Your task to perform on an android device: change notification settings in the gmail app Image 0: 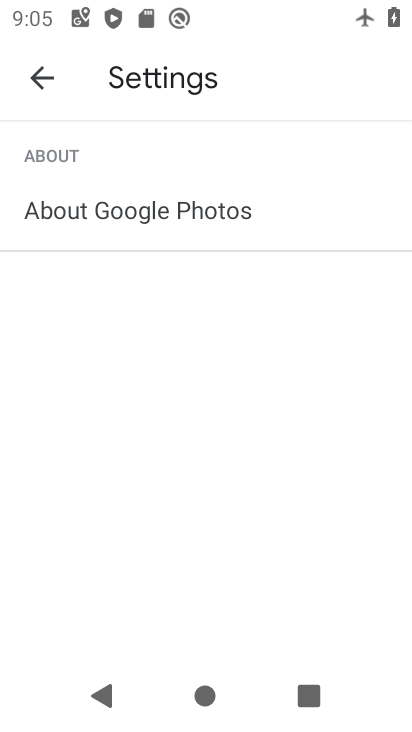
Step 0: press home button
Your task to perform on an android device: change notification settings in the gmail app Image 1: 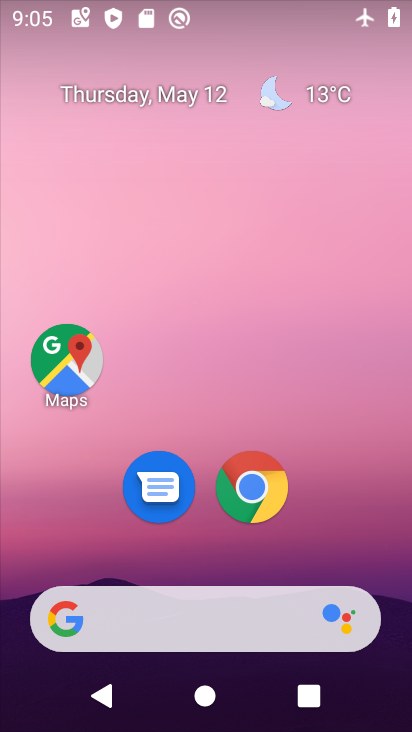
Step 1: drag from (381, 535) to (288, 0)
Your task to perform on an android device: change notification settings in the gmail app Image 2: 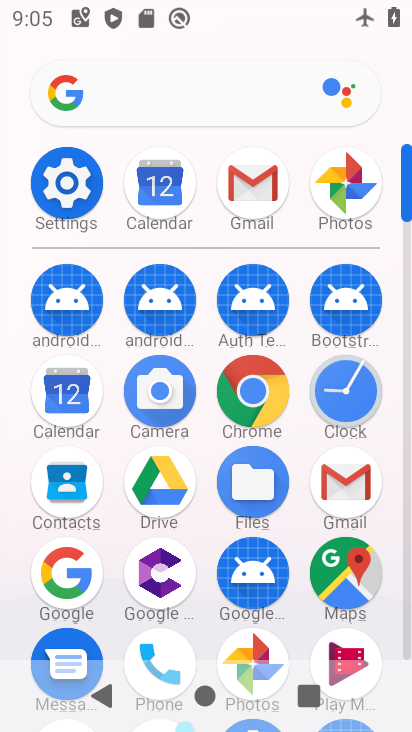
Step 2: click (249, 197)
Your task to perform on an android device: change notification settings in the gmail app Image 3: 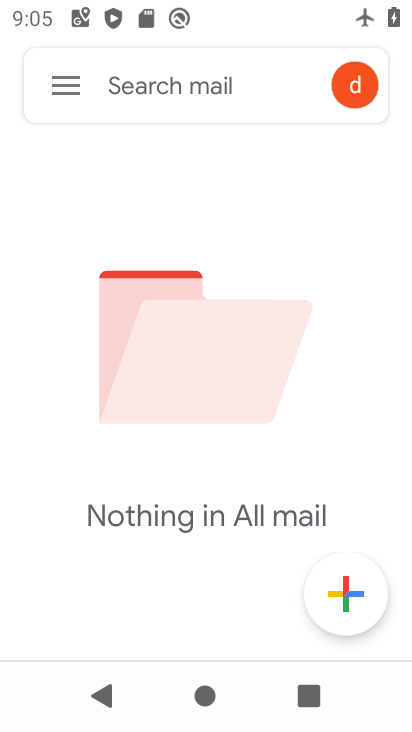
Step 3: click (70, 81)
Your task to perform on an android device: change notification settings in the gmail app Image 4: 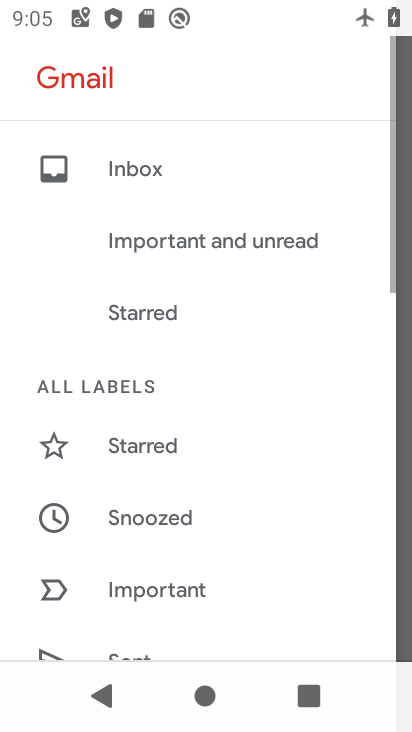
Step 4: drag from (236, 522) to (244, 109)
Your task to perform on an android device: change notification settings in the gmail app Image 5: 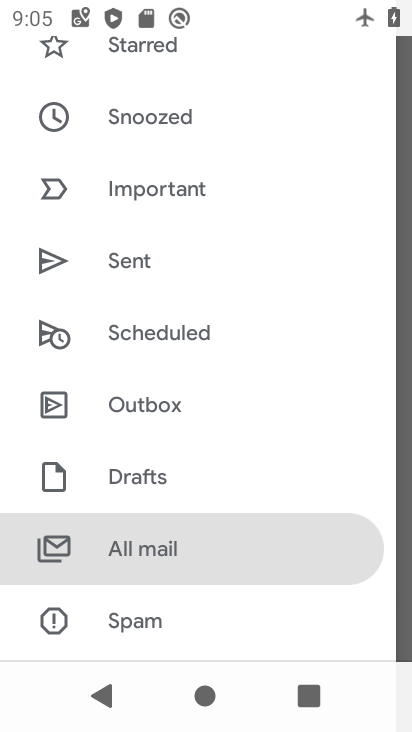
Step 5: drag from (264, 569) to (269, 139)
Your task to perform on an android device: change notification settings in the gmail app Image 6: 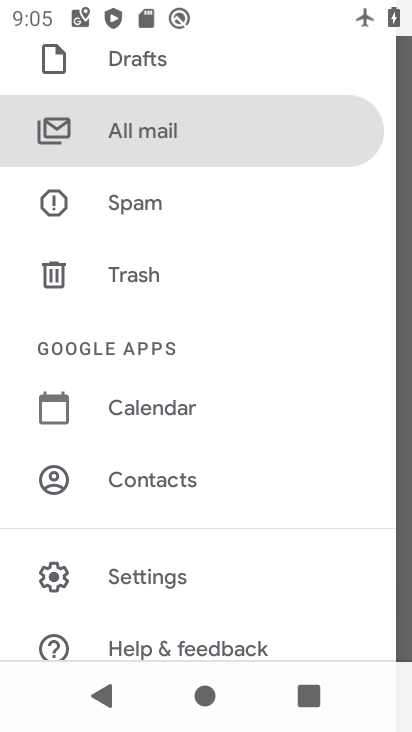
Step 6: click (163, 581)
Your task to perform on an android device: change notification settings in the gmail app Image 7: 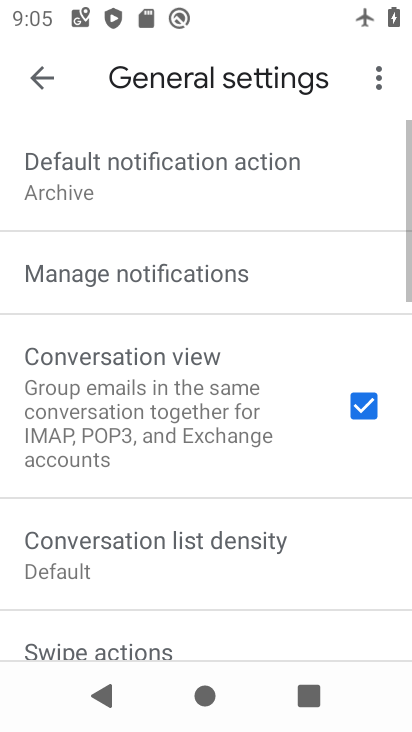
Step 7: click (139, 281)
Your task to perform on an android device: change notification settings in the gmail app Image 8: 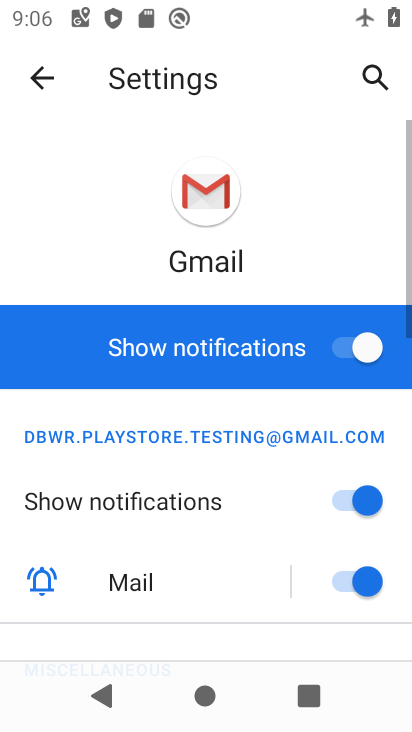
Step 8: click (364, 352)
Your task to perform on an android device: change notification settings in the gmail app Image 9: 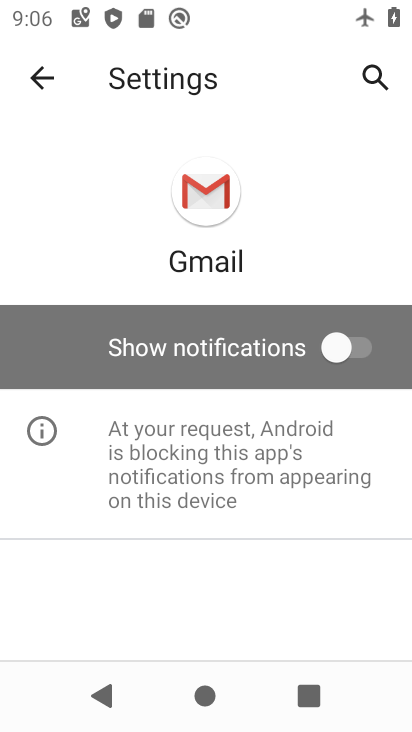
Step 9: task complete